Your task to perform on an android device: turn on airplane mode Image 0: 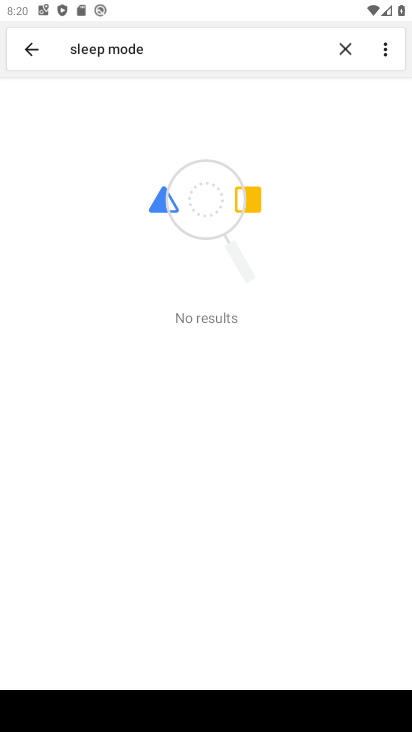
Step 0: press home button
Your task to perform on an android device: turn on airplane mode Image 1: 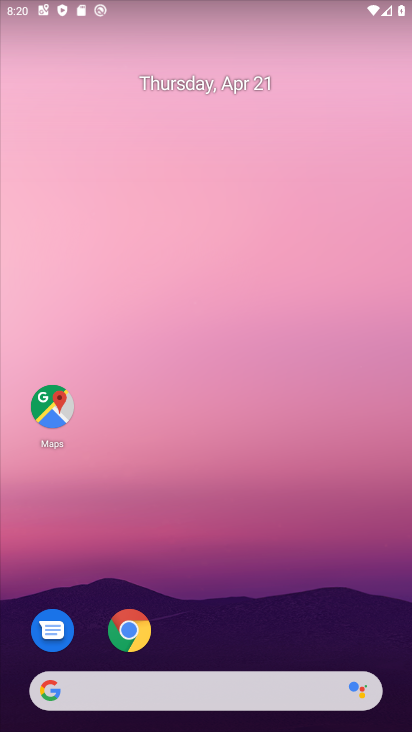
Step 1: drag from (169, 518) to (325, 21)
Your task to perform on an android device: turn on airplane mode Image 2: 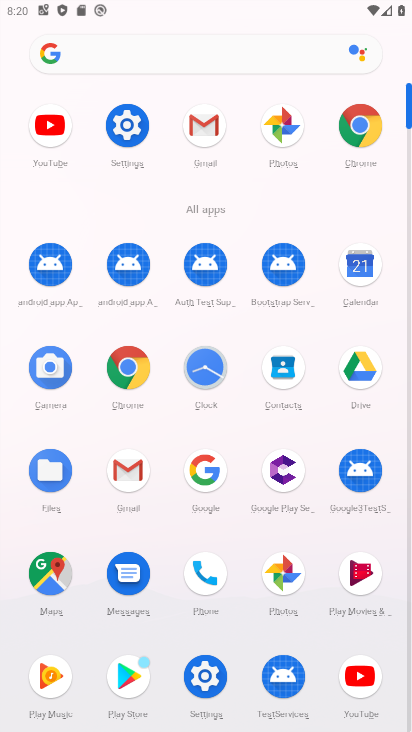
Step 2: click (130, 143)
Your task to perform on an android device: turn on airplane mode Image 3: 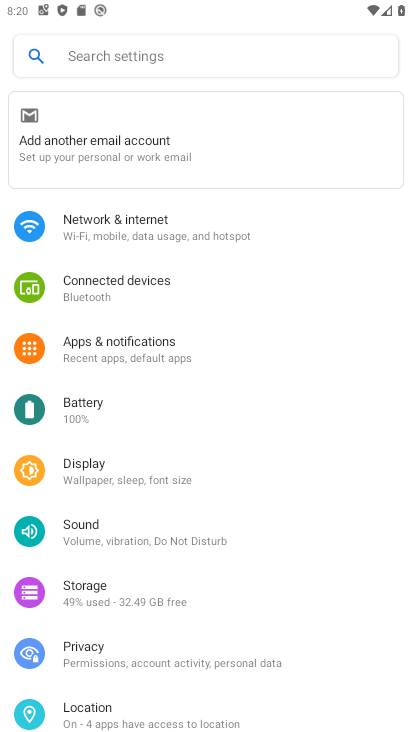
Step 3: click (136, 225)
Your task to perform on an android device: turn on airplane mode Image 4: 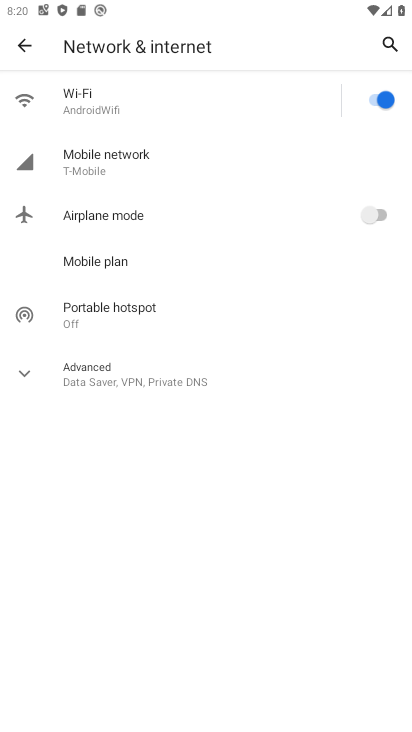
Step 4: click (380, 210)
Your task to perform on an android device: turn on airplane mode Image 5: 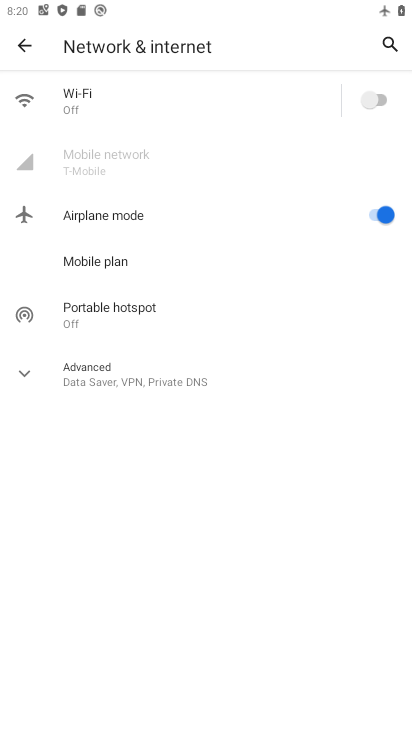
Step 5: task complete